Your task to perform on an android device: Open Google Maps Image 0: 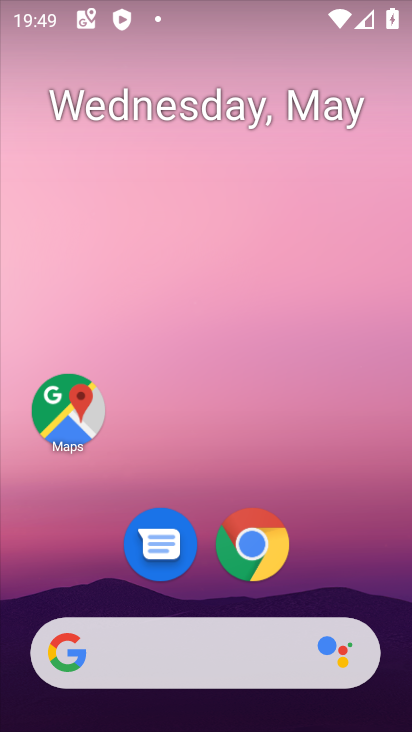
Step 0: click (60, 421)
Your task to perform on an android device: Open Google Maps Image 1: 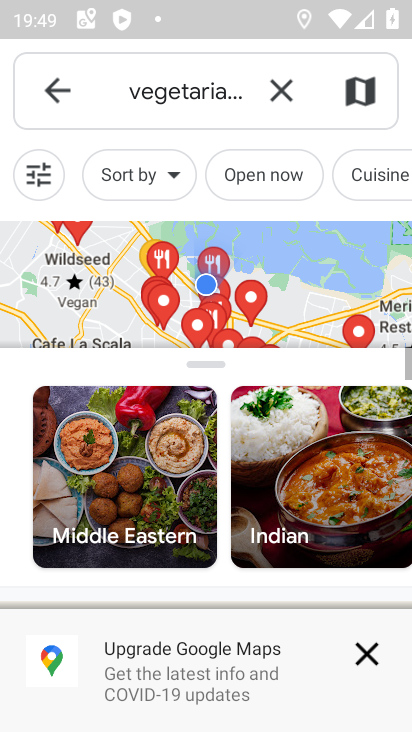
Step 1: task complete